Your task to perform on an android device: Open internet settings Image 0: 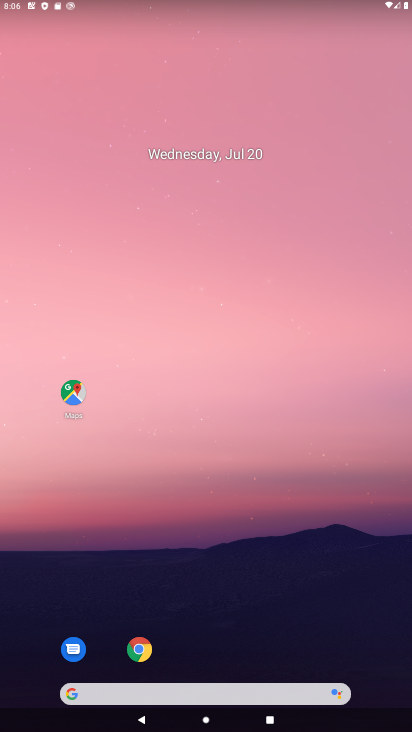
Step 0: drag from (199, 667) to (91, 163)
Your task to perform on an android device: Open internet settings Image 1: 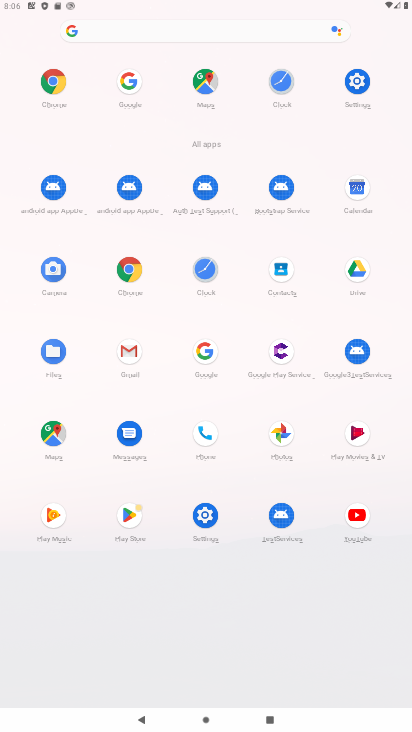
Step 1: click (348, 81)
Your task to perform on an android device: Open internet settings Image 2: 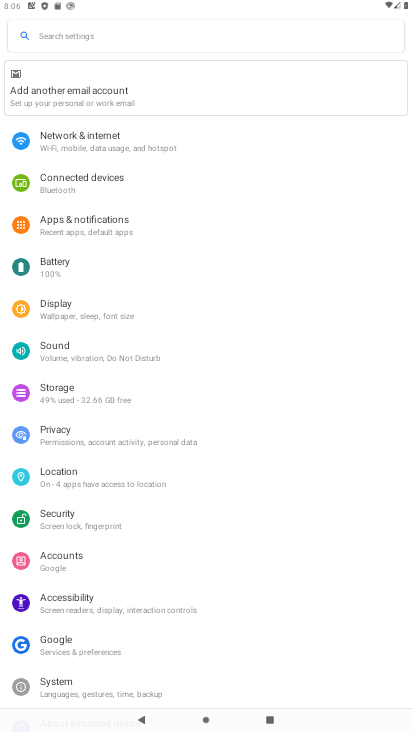
Step 2: click (75, 140)
Your task to perform on an android device: Open internet settings Image 3: 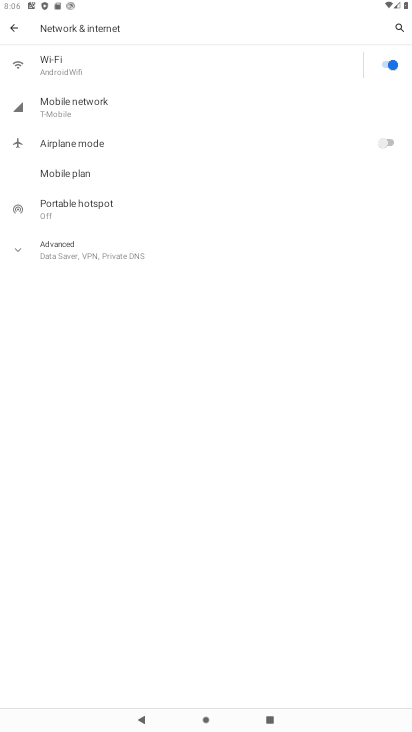
Step 3: click (86, 97)
Your task to perform on an android device: Open internet settings Image 4: 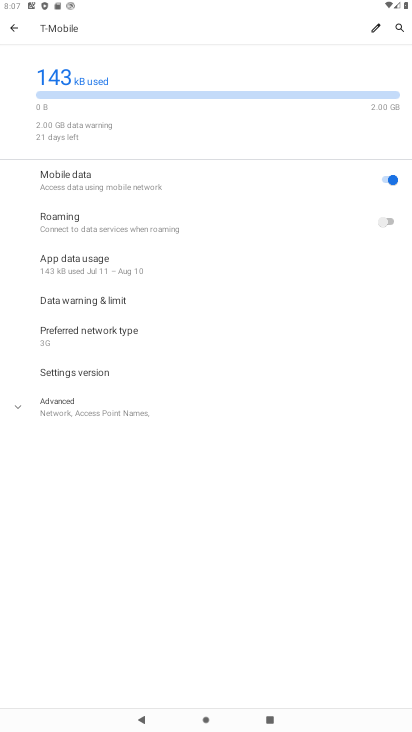
Step 4: task complete